Your task to perform on an android device: Open privacy settings Image 0: 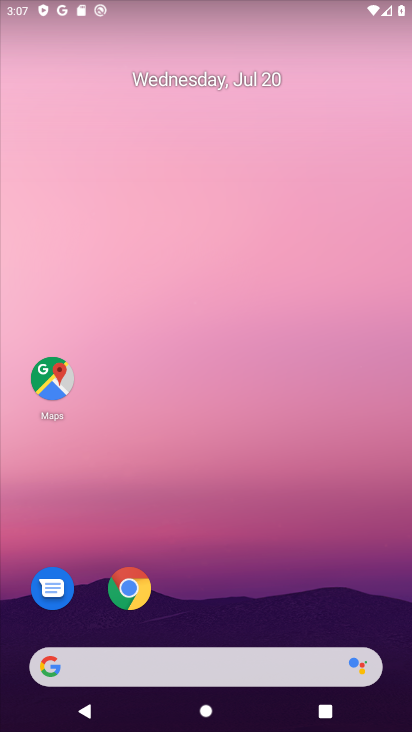
Step 0: drag from (198, 340) to (184, 270)
Your task to perform on an android device: Open privacy settings Image 1: 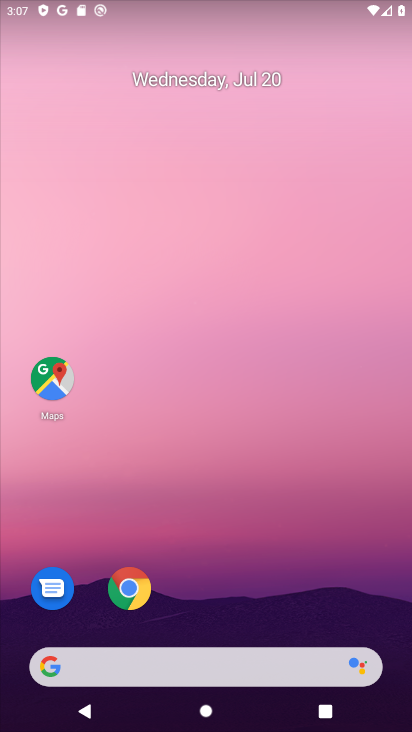
Step 1: drag from (220, 550) to (231, 47)
Your task to perform on an android device: Open privacy settings Image 2: 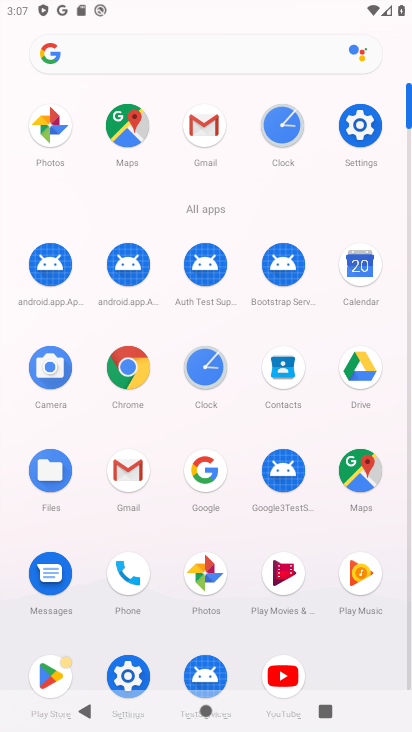
Step 2: click (371, 151)
Your task to perform on an android device: Open privacy settings Image 3: 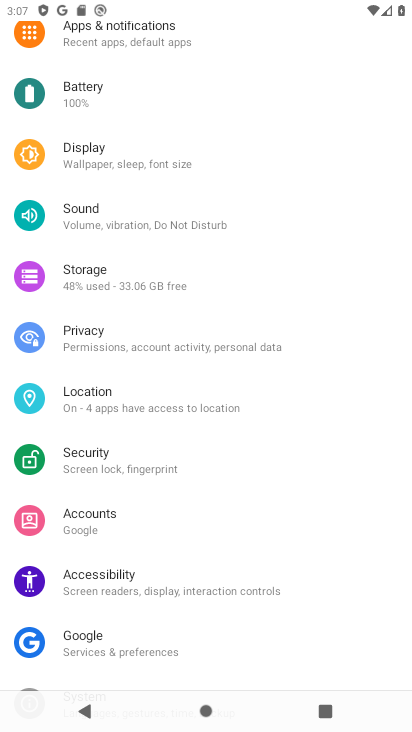
Step 3: drag from (111, 588) to (258, 15)
Your task to perform on an android device: Open privacy settings Image 4: 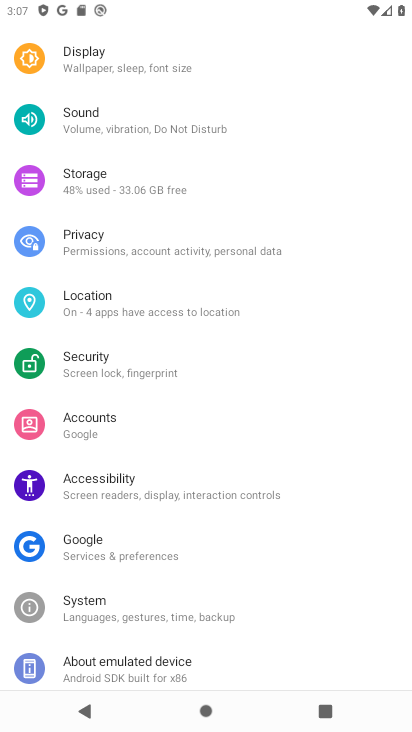
Step 4: click (92, 218)
Your task to perform on an android device: Open privacy settings Image 5: 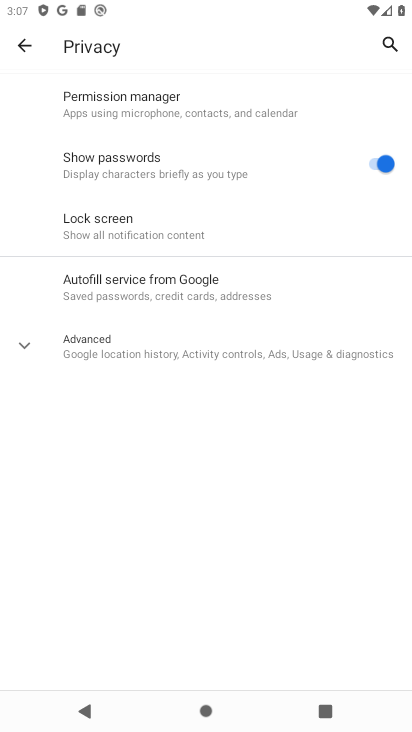
Step 5: task complete